Your task to perform on an android device: What is the news today? Image 0: 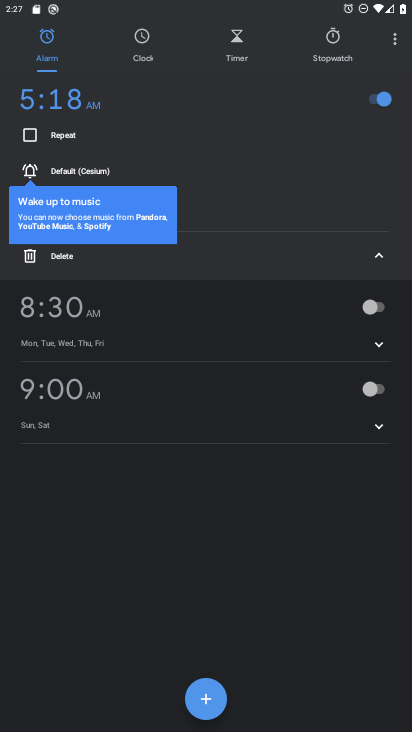
Step 0: press home button
Your task to perform on an android device: What is the news today? Image 1: 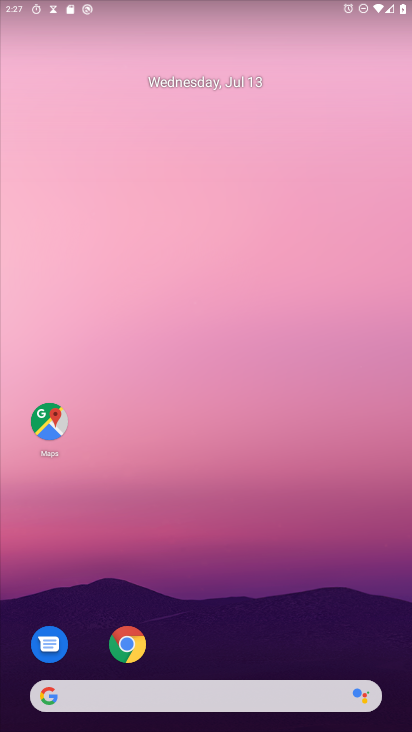
Step 1: click (138, 692)
Your task to perform on an android device: What is the news today? Image 2: 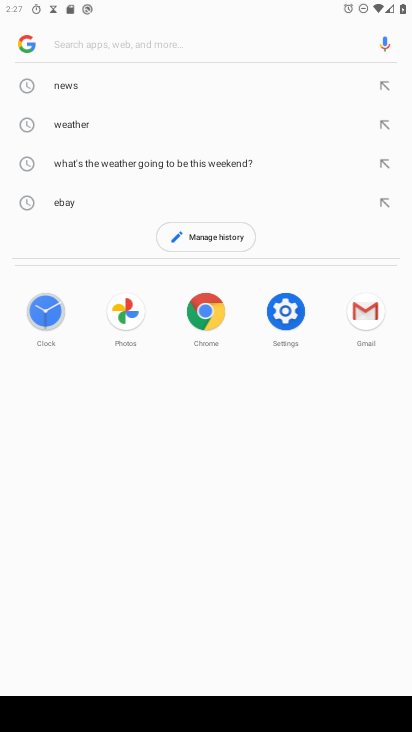
Step 2: type "What is the news today?"
Your task to perform on an android device: What is the news today? Image 3: 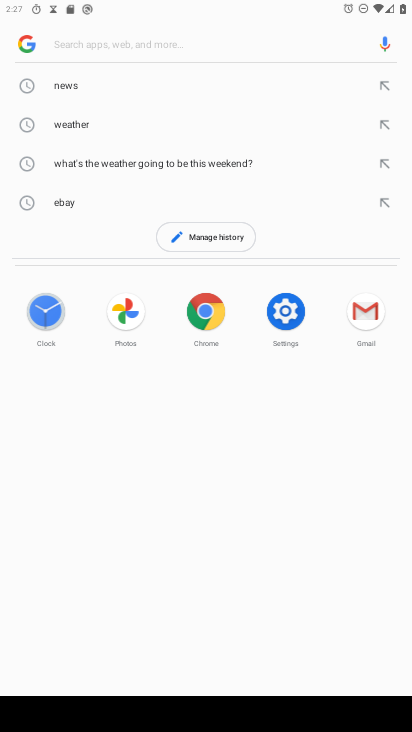
Step 3: click (155, 51)
Your task to perform on an android device: What is the news today? Image 4: 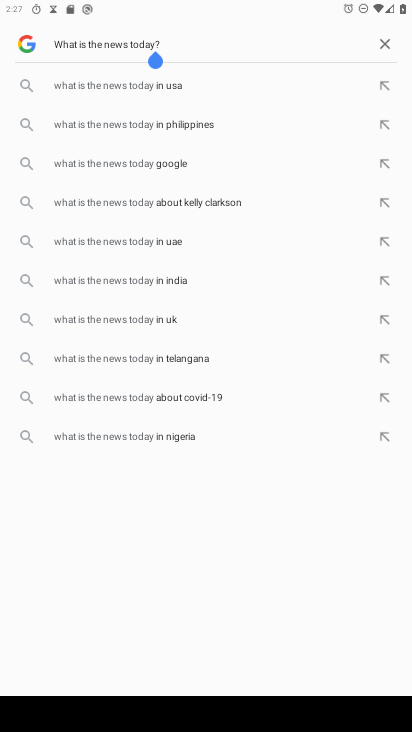
Step 4: press enter
Your task to perform on an android device: What is the news today? Image 5: 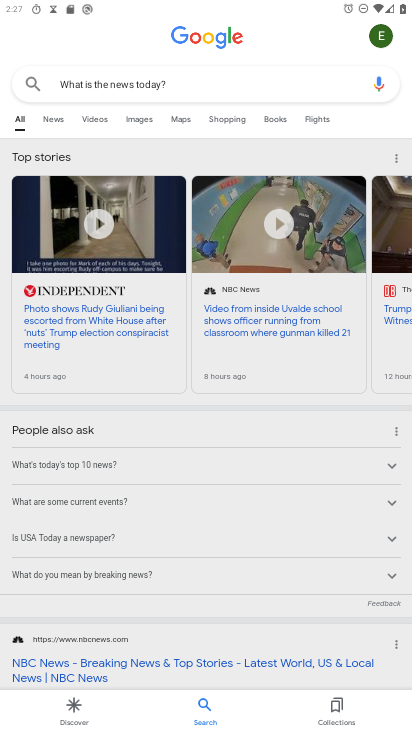
Step 5: task complete